Your task to perform on an android device: choose inbox layout in the gmail app Image 0: 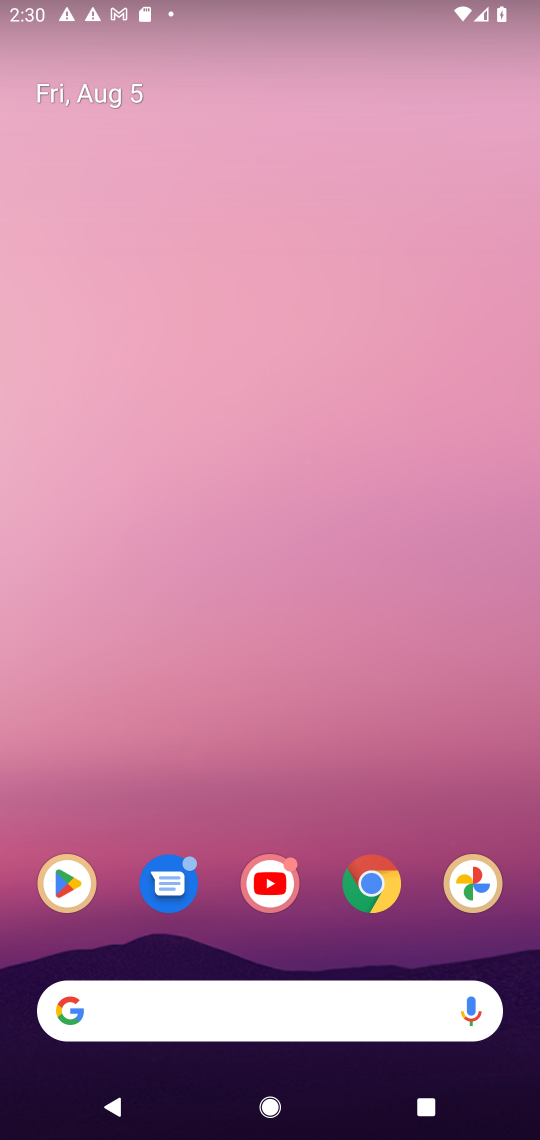
Step 0: press home button
Your task to perform on an android device: choose inbox layout in the gmail app Image 1: 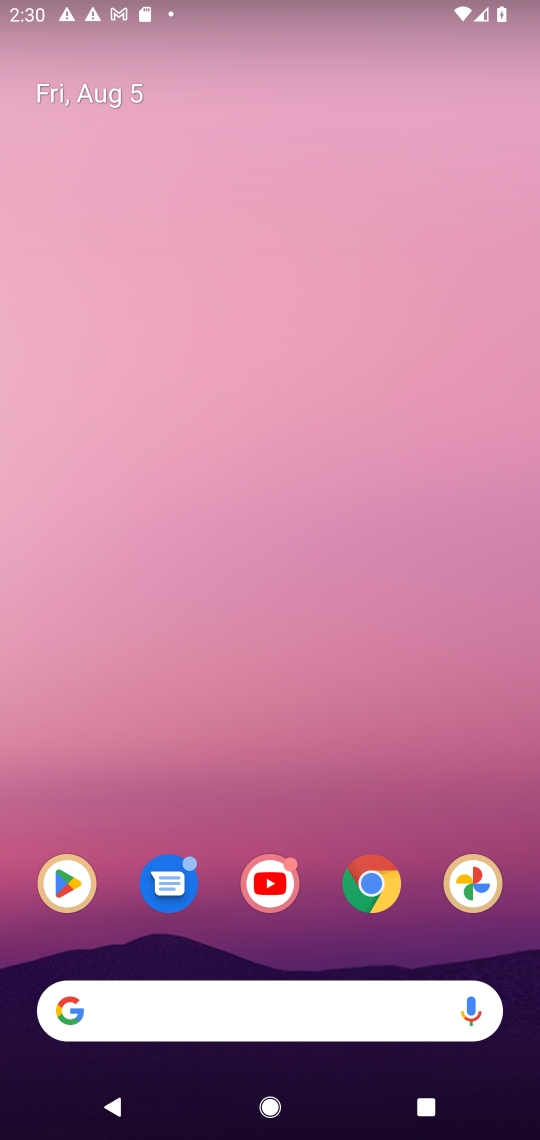
Step 1: drag from (312, 917) to (332, 63)
Your task to perform on an android device: choose inbox layout in the gmail app Image 2: 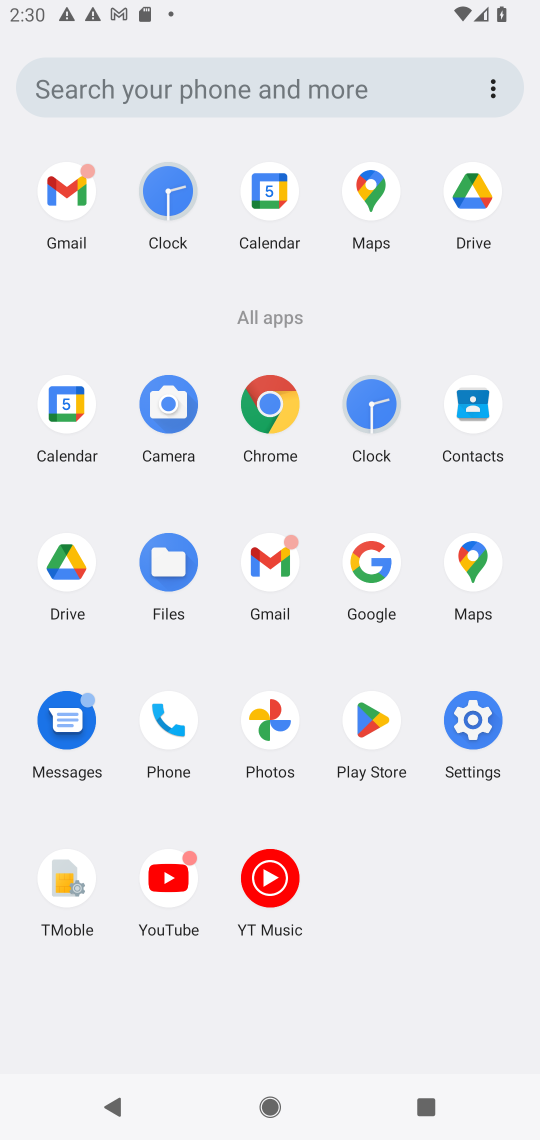
Step 2: click (267, 546)
Your task to perform on an android device: choose inbox layout in the gmail app Image 3: 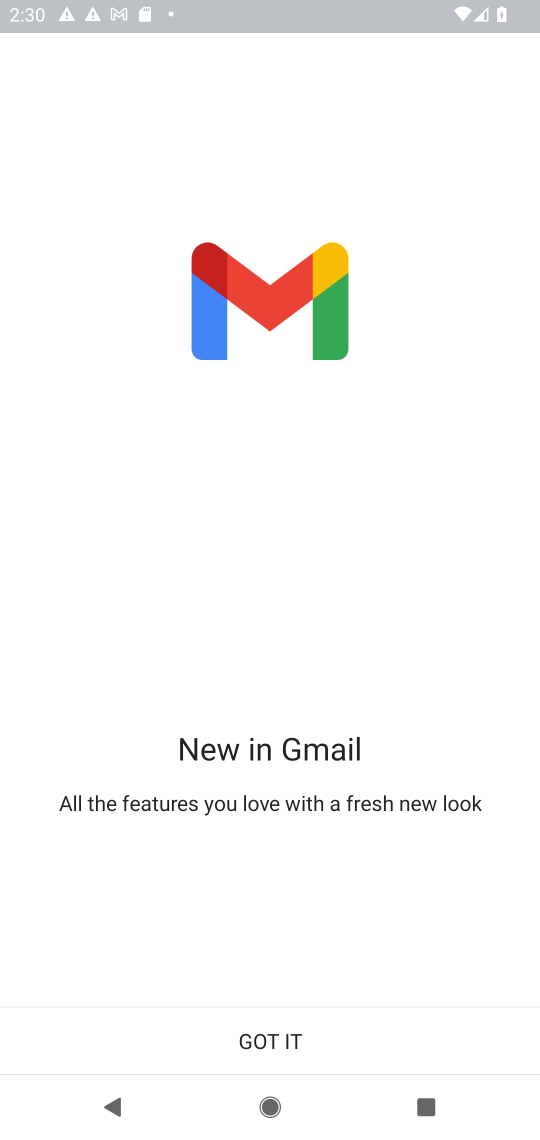
Step 3: click (277, 1047)
Your task to perform on an android device: choose inbox layout in the gmail app Image 4: 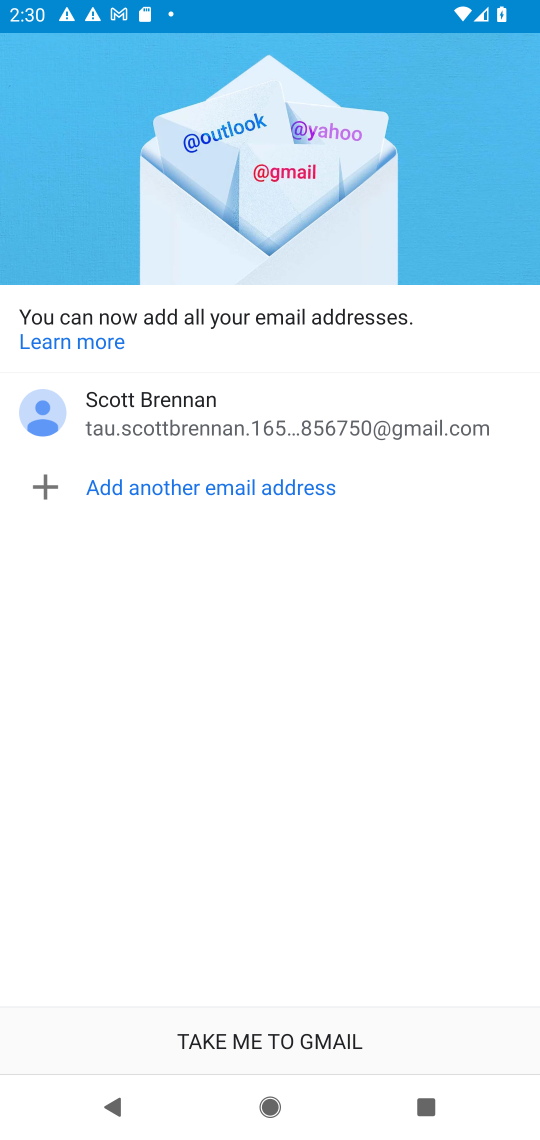
Step 4: click (261, 1047)
Your task to perform on an android device: choose inbox layout in the gmail app Image 5: 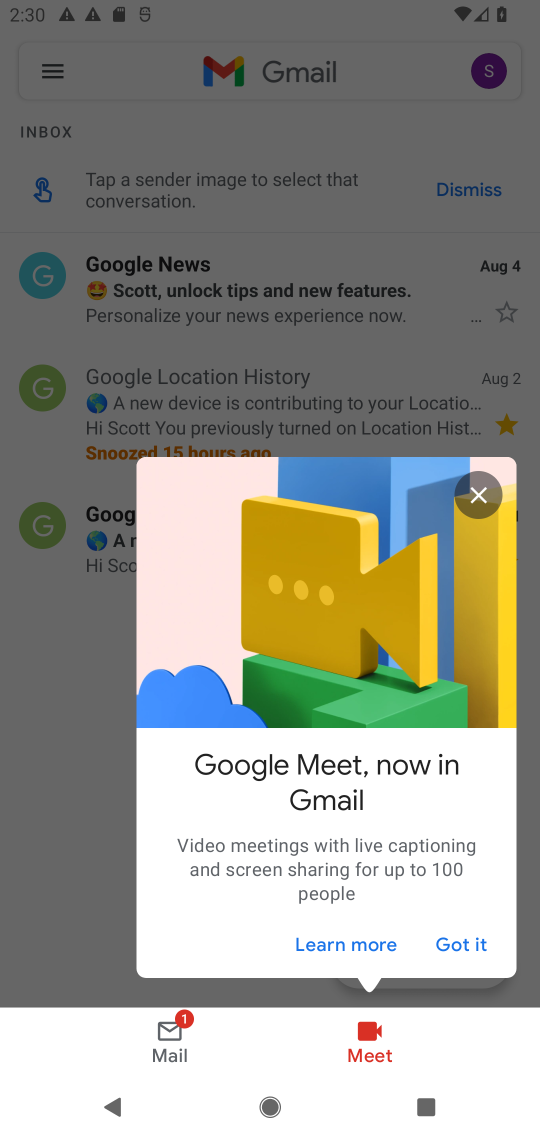
Step 5: click (460, 946)
Your task to perform on an android device: choose inbox layout in the gmail app Image 6: 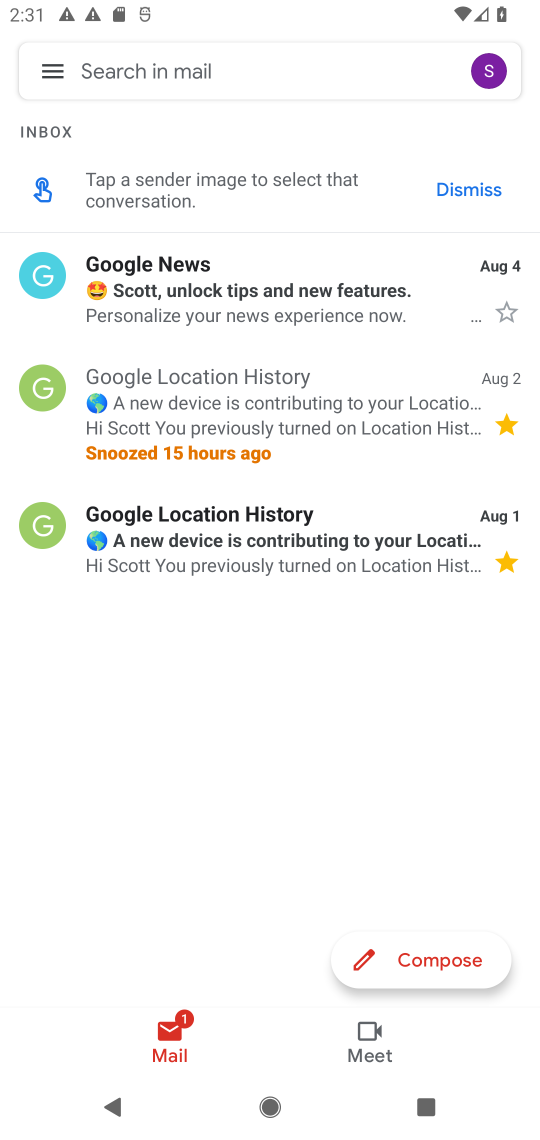
Step 6: click (46, 63)
Your task to perform on an android device: choose inbox layout in the gmail app Image 7: 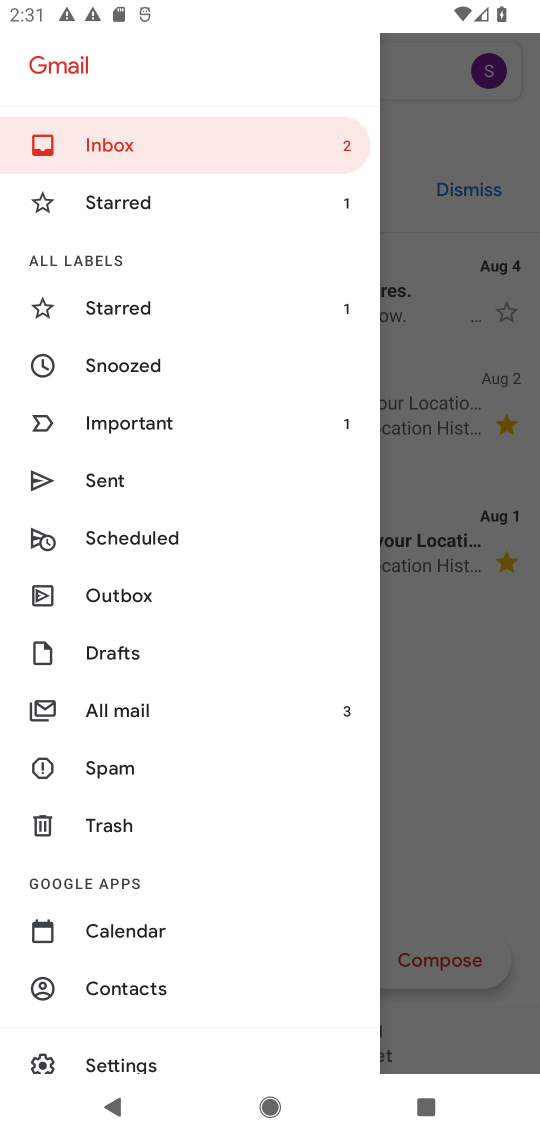
Step 7: drag from (189, 995) to (203, 218)
Your task to perform on an android device: choose inbox layout in the gmail app Image 8: 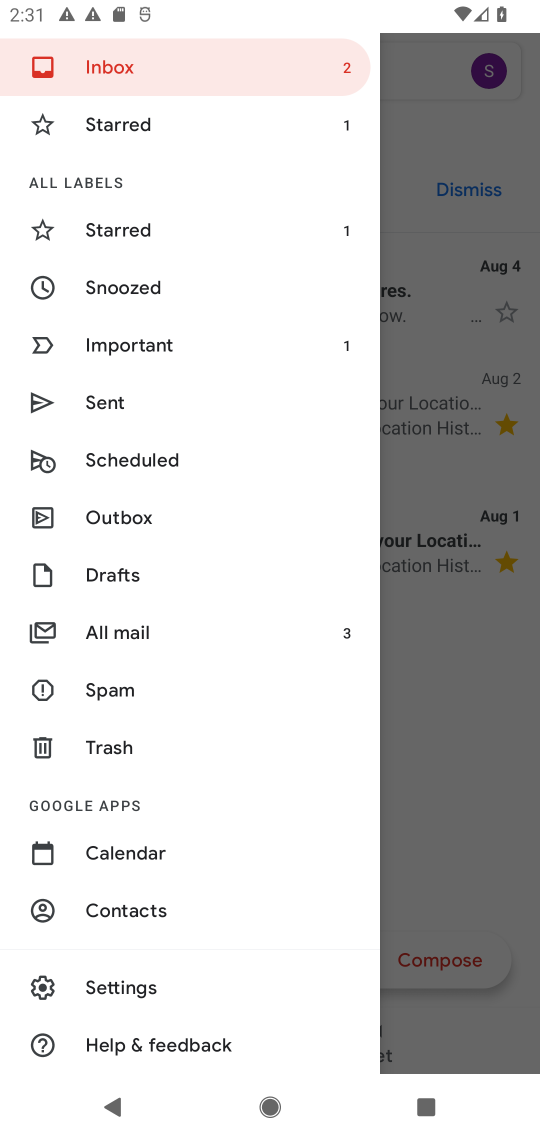
Step 8: click (168, 981)
Your task to perform on an android device: choose inbox layout in the gmail app Image 9: 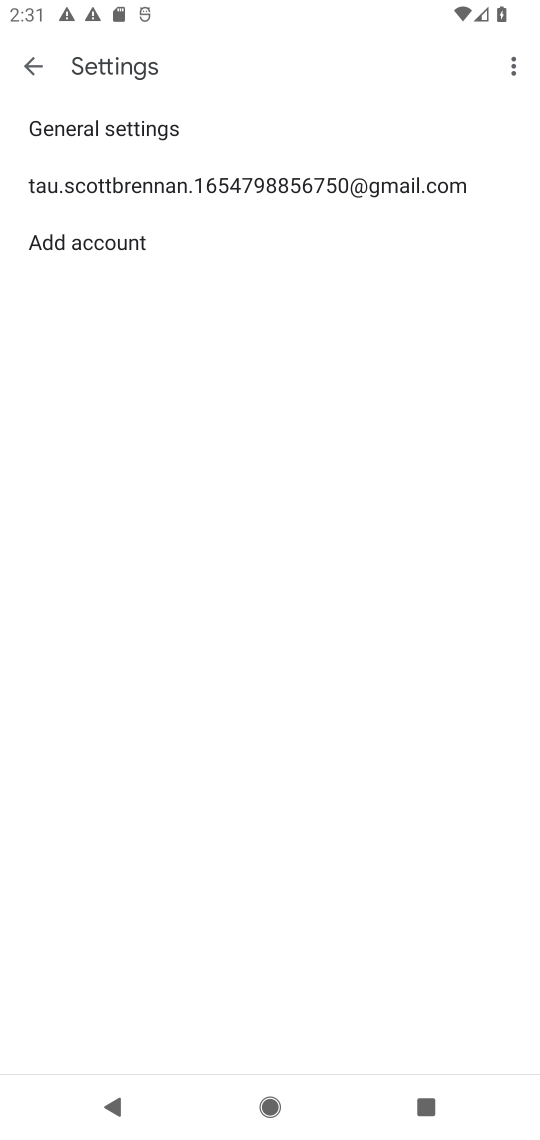
Step 9: click (217, 181)
Your task to perform on an android device: choose inbox layout in the gmail app Image 10: 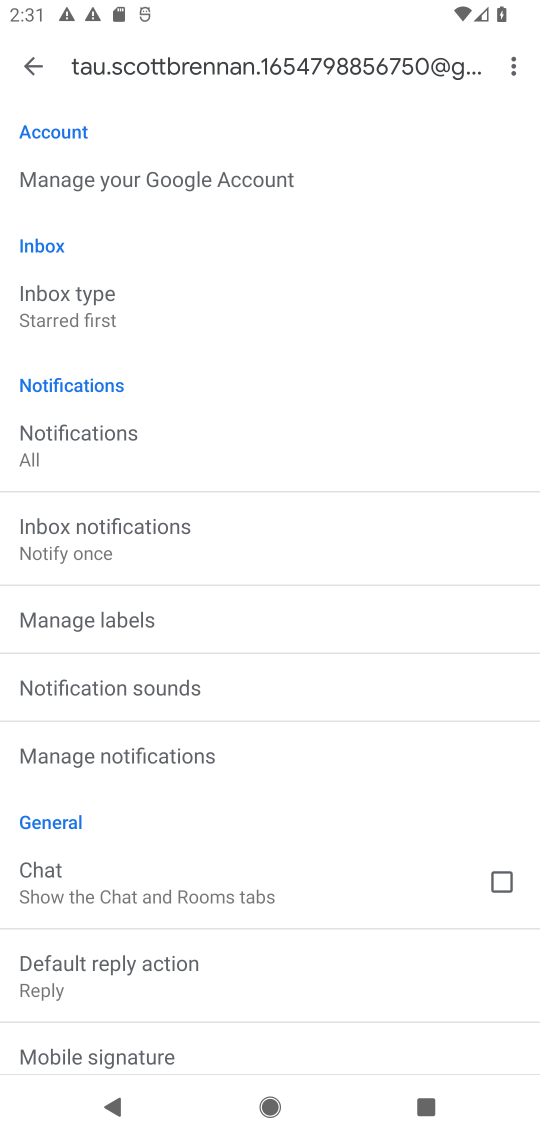
Step 10: click (133, 311)
Your task to perform on an android device: choose inbox layout in the gmail app Image 11: 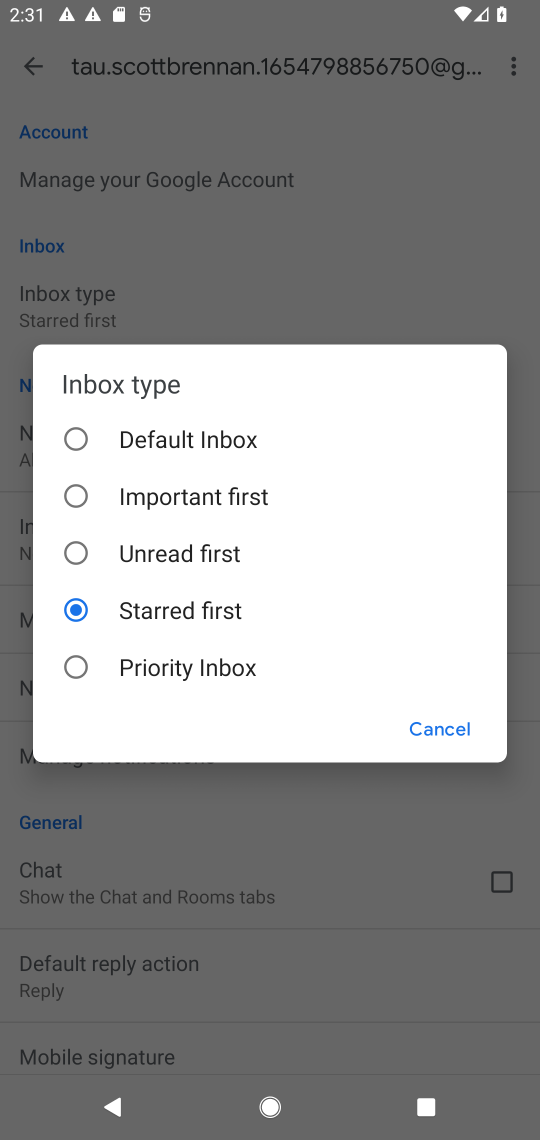
Step 11: click (71, 430)
Your task to perform on an android device: choose inbox layout in the gmail app Image 12: 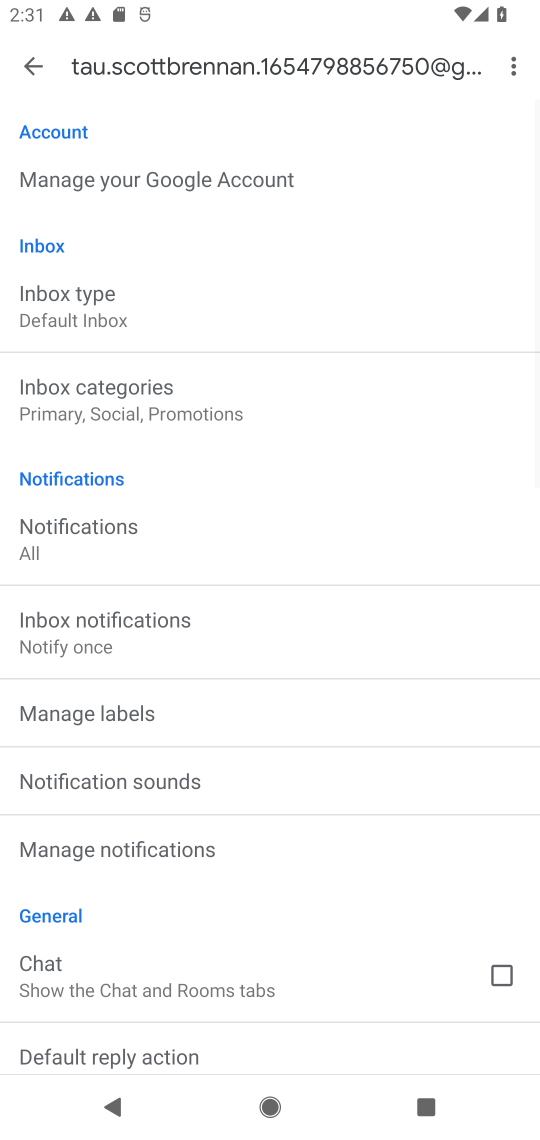
Step 12: task complete